Your task to perform on an android device: Open the stopwatch Image 0: 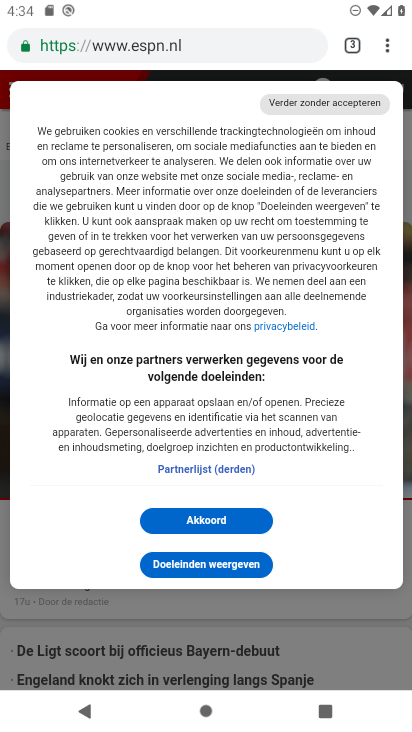
Step 0: press home button
Your task to perform on an android device: Open the stopwatch Image 1: 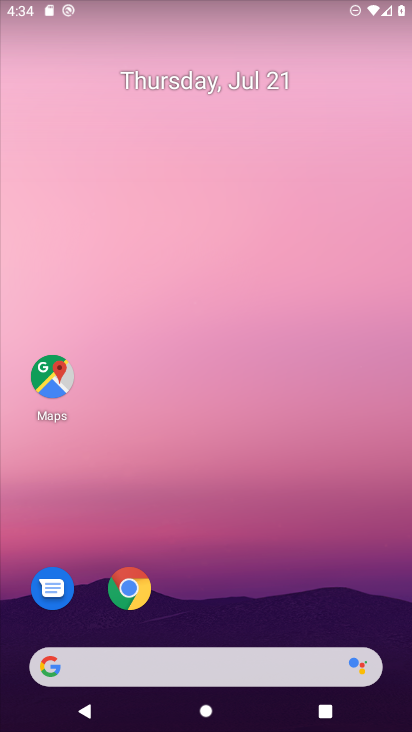
Step 1: drag from (236, 660) to (261, 264)
Your task to perform on an android device: Open the stopwatch Image 2: 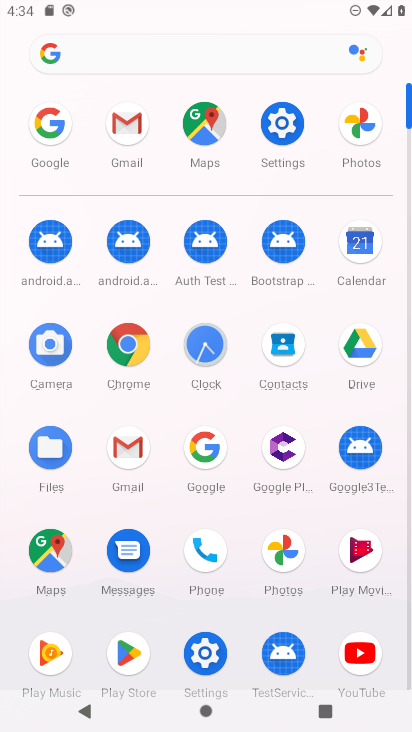
Step 2: click (205, 359)
Your task to perform on an android device: Open the stopwatch Image 3: 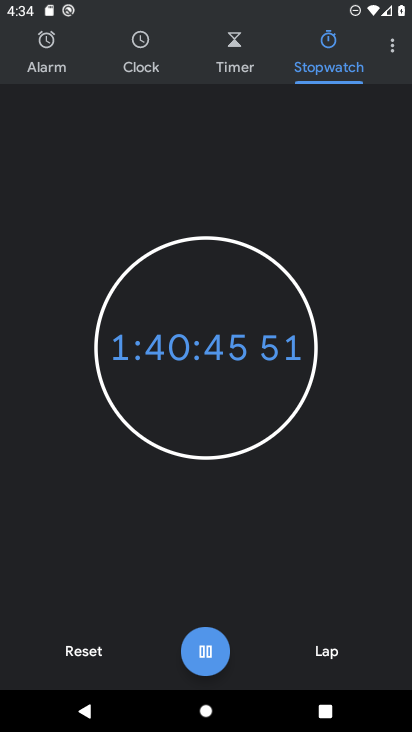
Step 3: task complete